Your task to perform on an android device: Show me recent news Image 0: 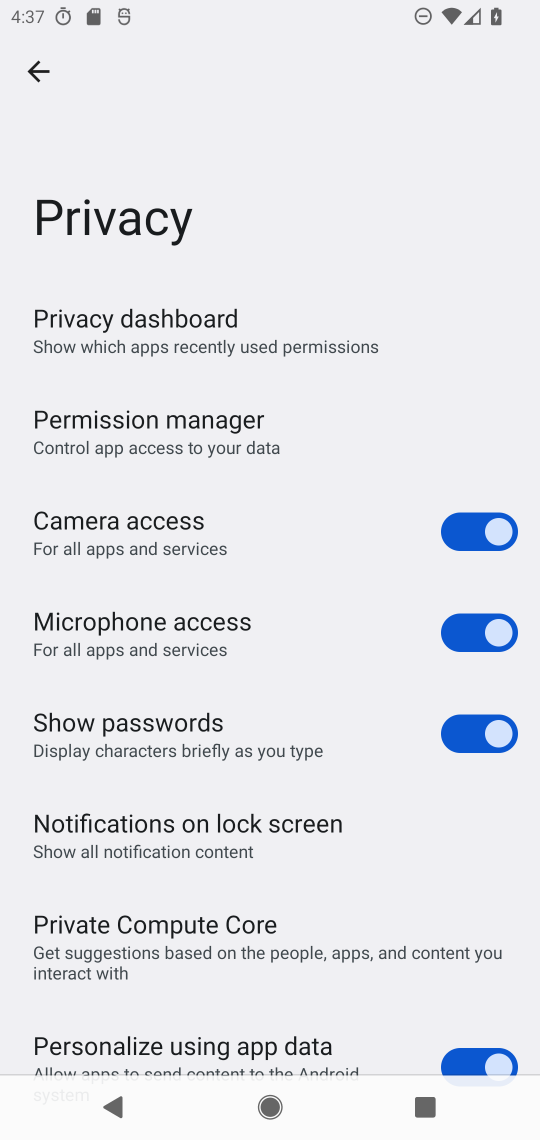
Step 0: press home button
Your task to perform on an android device: Show me recent news Image 1: 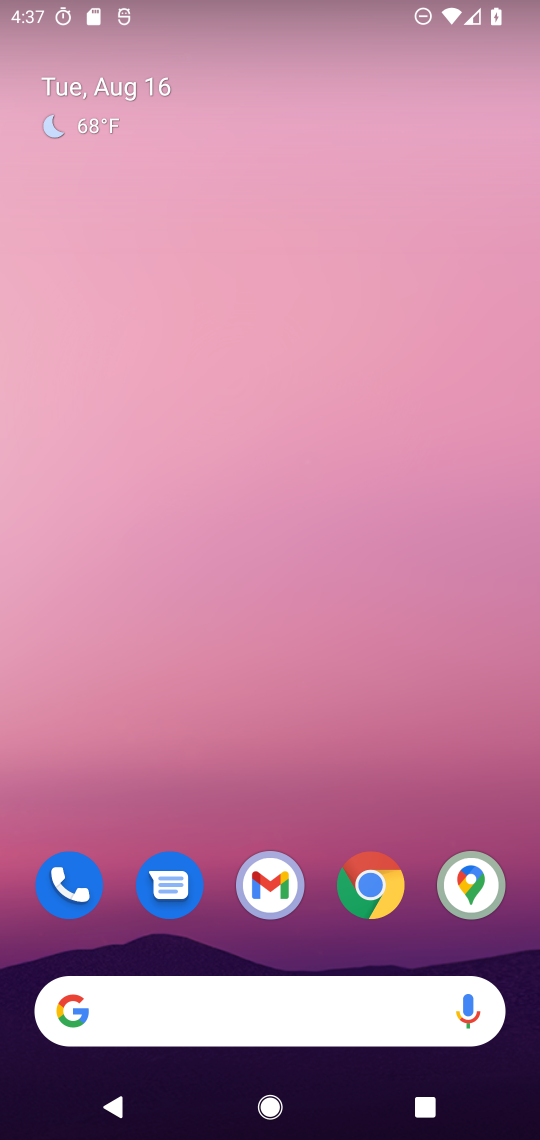
Step 1: drag from (244, 247) to (255, 50)
Your task to perform on an android device: Show me recent news Image 2: 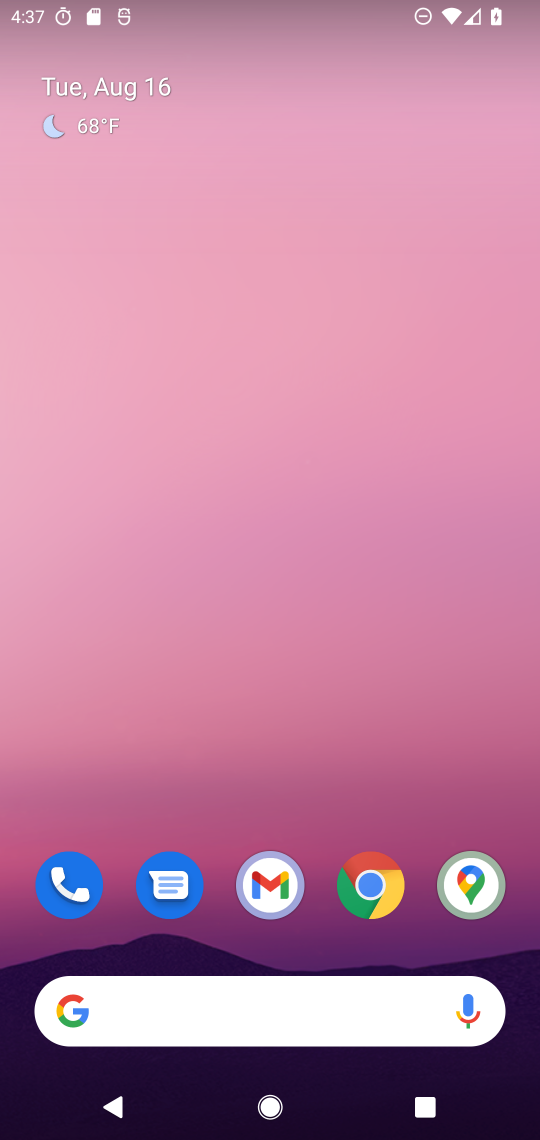
Step 2: drag from (298, 932) to (298, 58)
Your task to perform on an android device: Show me recent news Image 3: 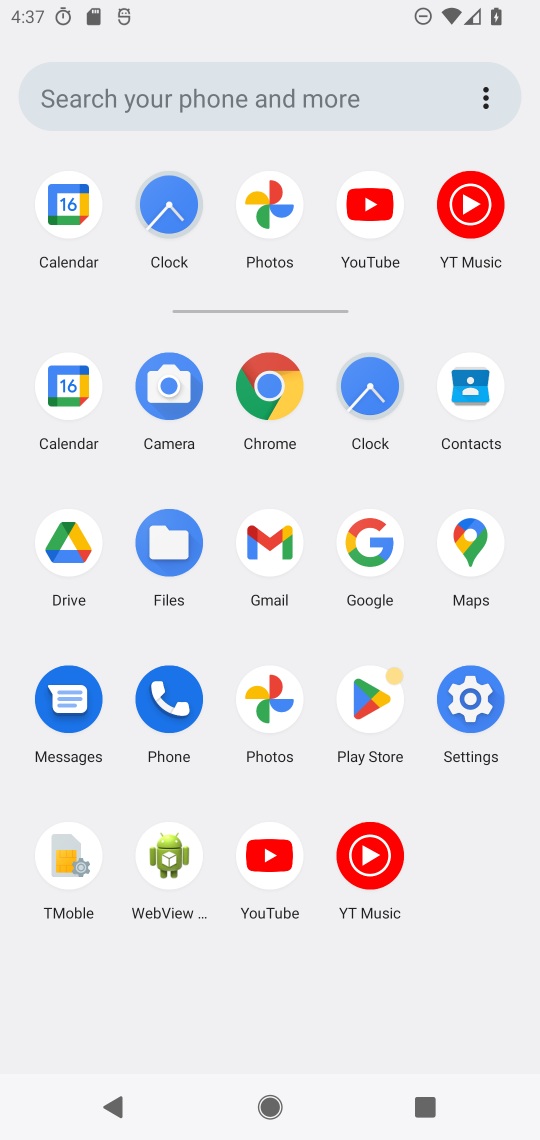
Step 3: click (377, 527)
Your task to perform on an android device: Show me recent news Image 4: 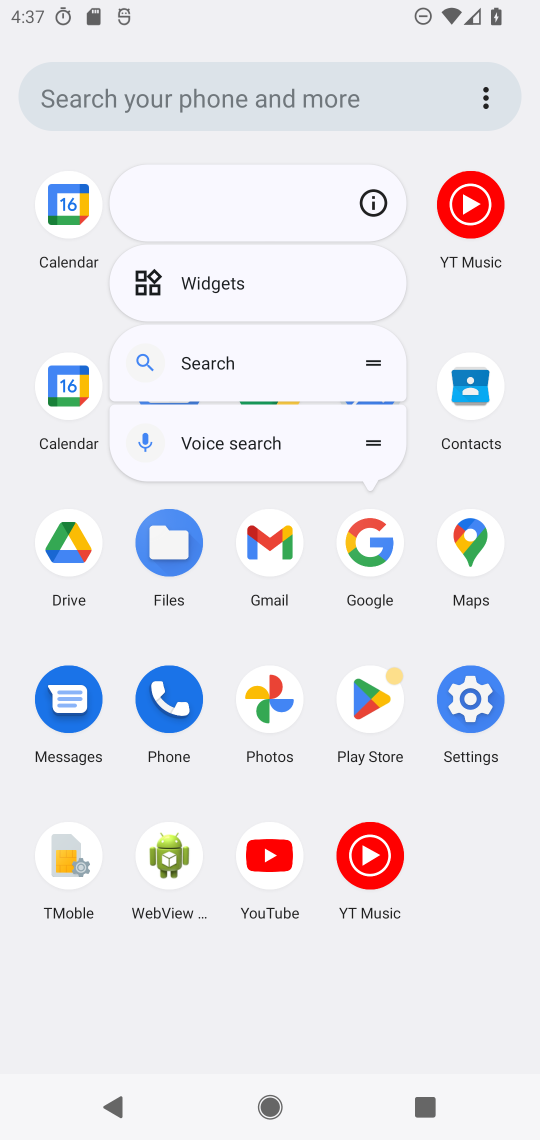
Step 4: click (356, 525)
Your task to perform on an android device: Show me recent news Image 5: 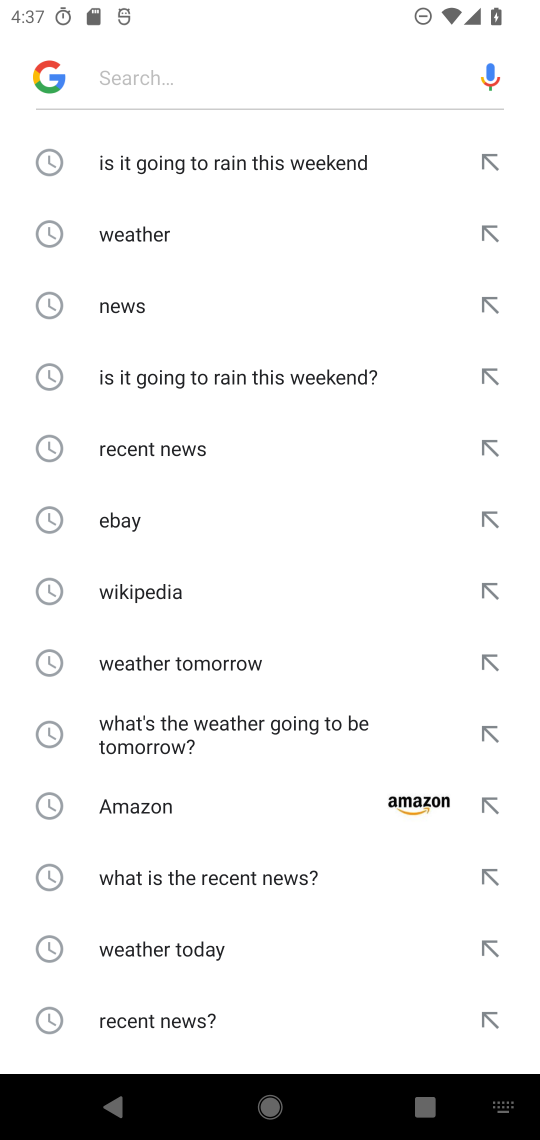
Step 5: click (317, 67)
Your task to perform on an android device: Show me recent news Image 6: 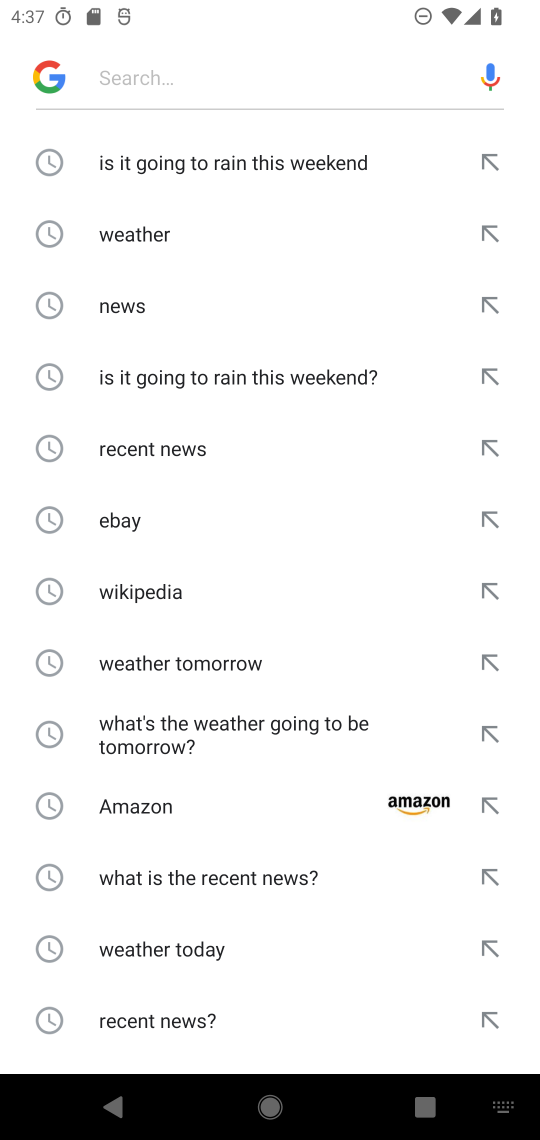
Step 6: type "Show me recent news "
Your task to perform on an android device: Show me recent news Image 7: 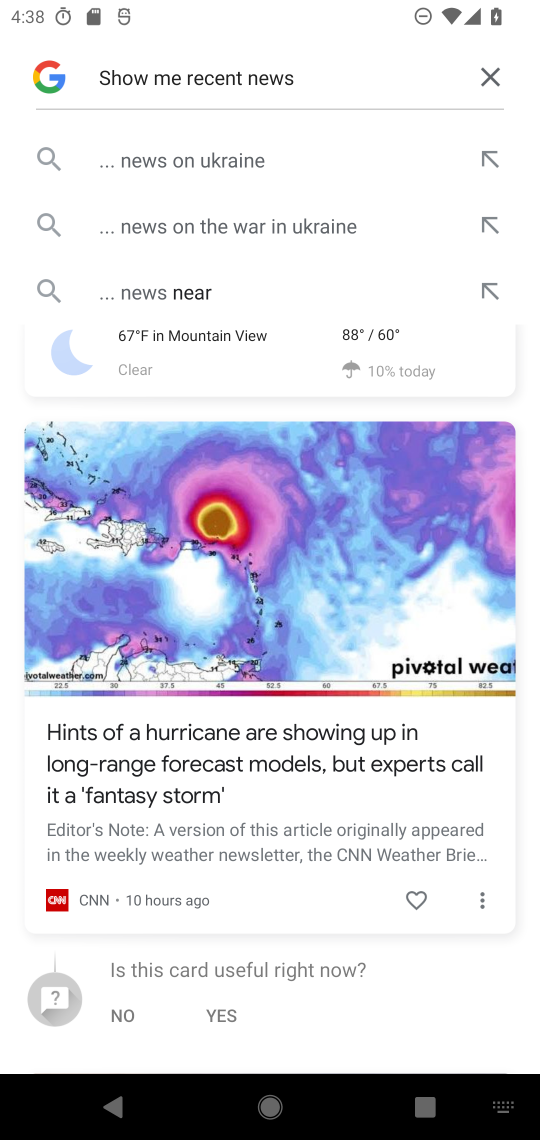
Step 7: click (271, 148)
Your task to perform on an android device: Show me recent news Image 8: 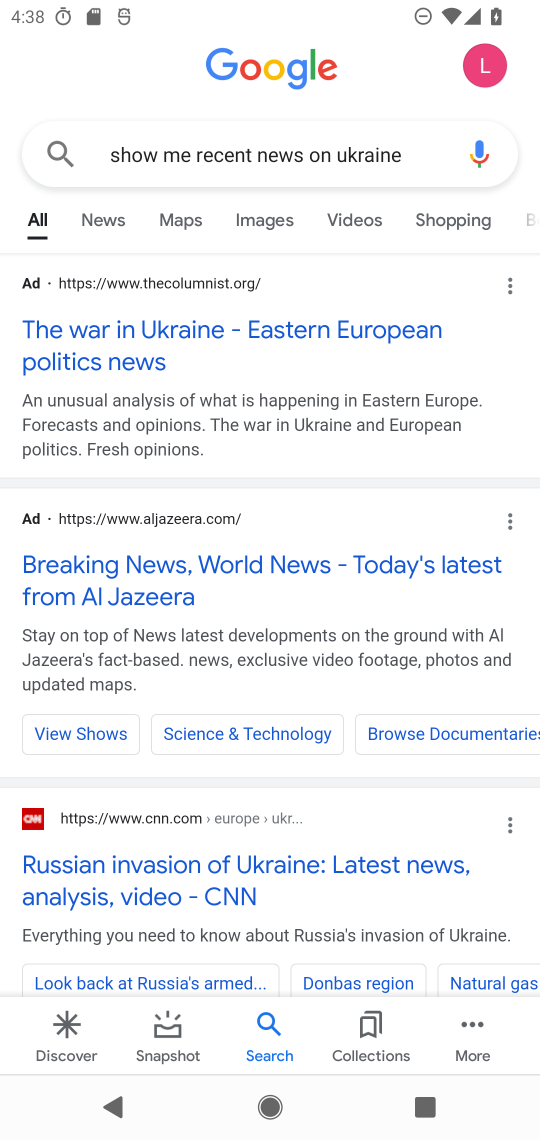
Step 8: task complete